Your task to perform on an android device: change keyboard looks Image 0: 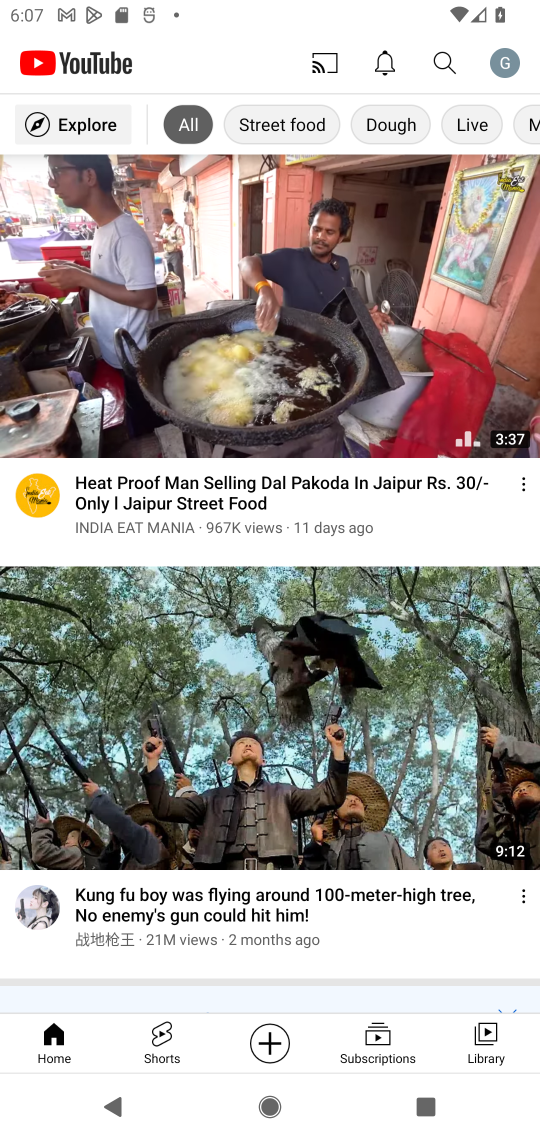
Step 0: press home button
Your task to perform on an android device: change keyboard looks Image 1: 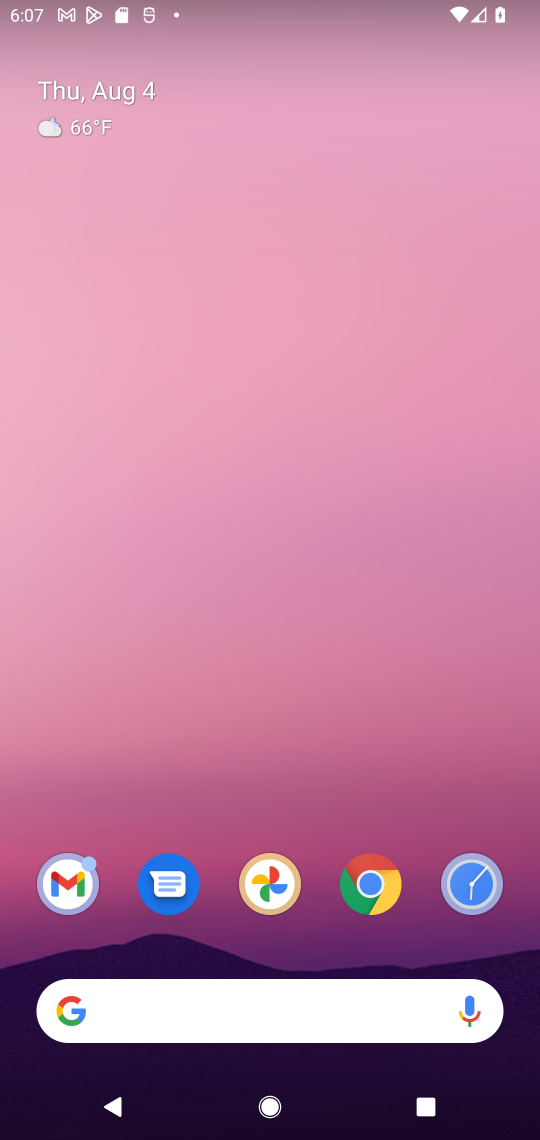
Step 1: drag from (307, 969) to (366, 370)
Your task to perform on an android device: change keyboard looks Image 2: 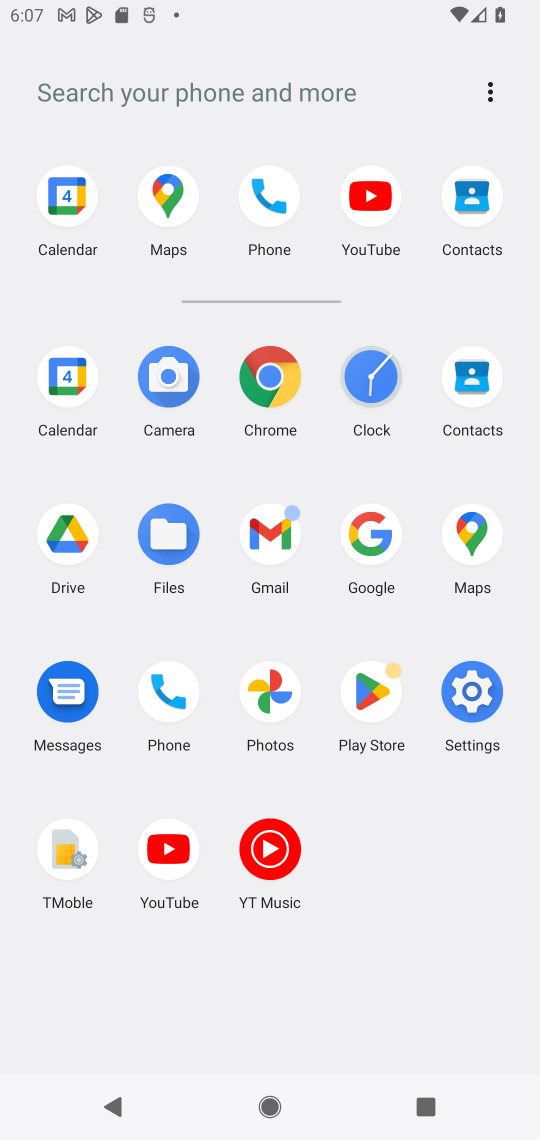
Step 2: click (465, 729)
Your task to perform on an android device: change keyboard looks Image 3: 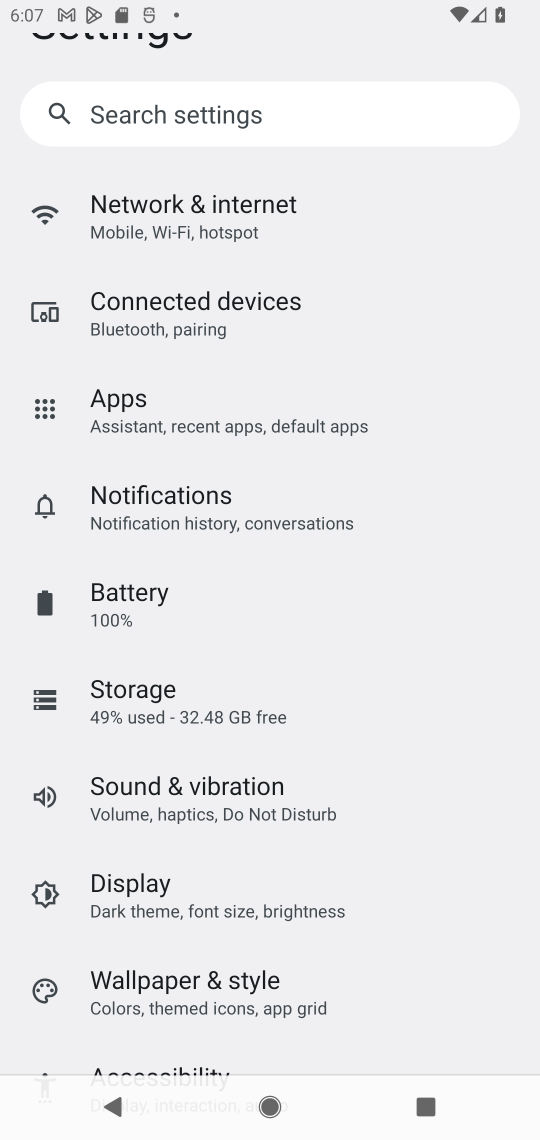
Step 3: drag from (209, 985) to (350, 245)
Your task to perform on an android device: change keyboard looks Image 4: 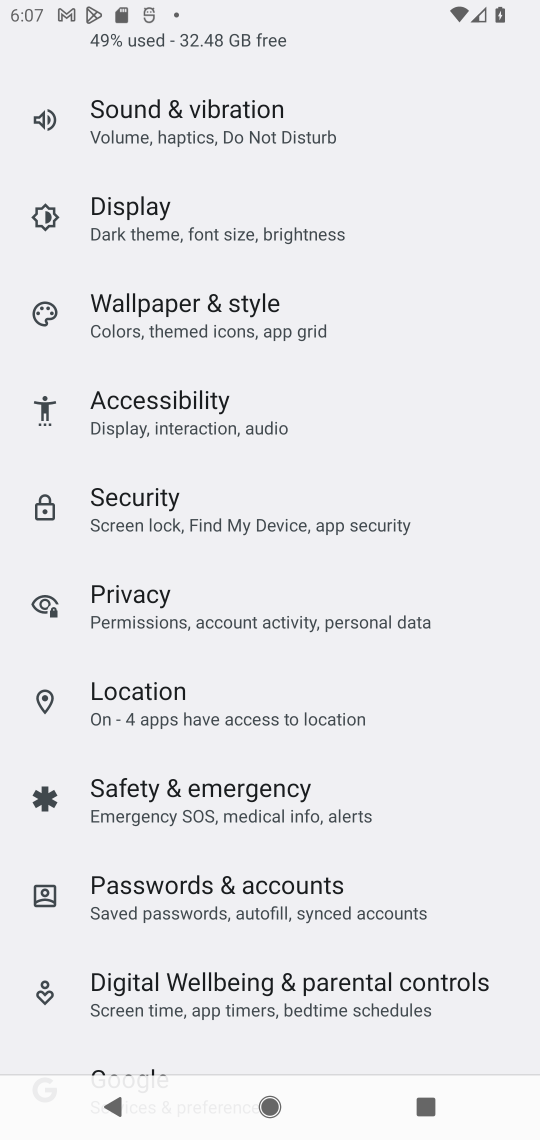
Step 4: drag from (279, 948) to (339, 278)
Your task to perform on an android device: change keyboard looks Image 5: 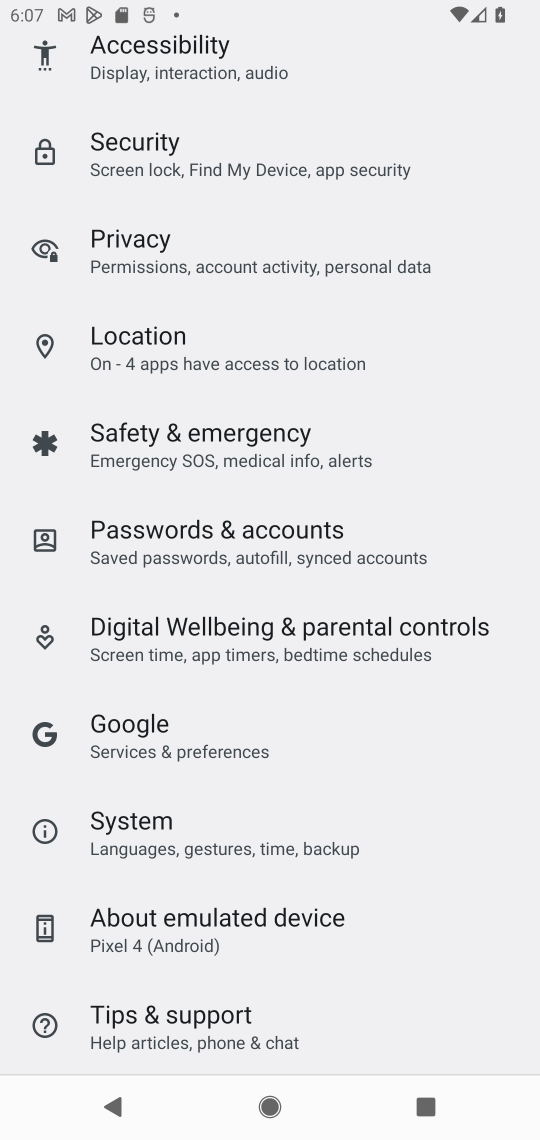
Step 5: drag from (272, 1012) to (389, 559)
Your task to perform on an android device: change keyboard looks Image 6: 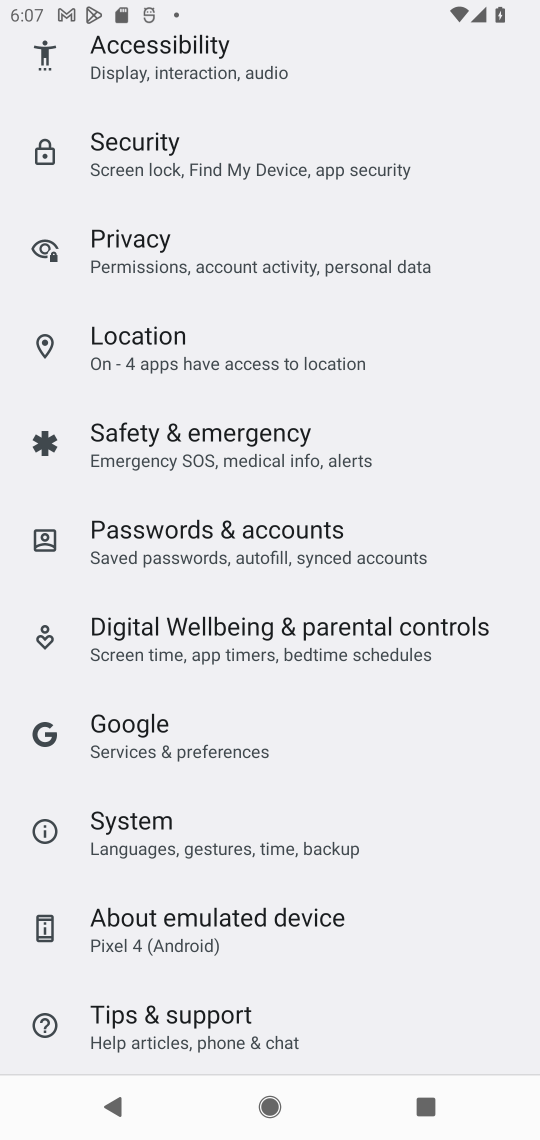
Step 6: click (204, 841)
Your task to perform on an android device: change keyboard looks Image 7: 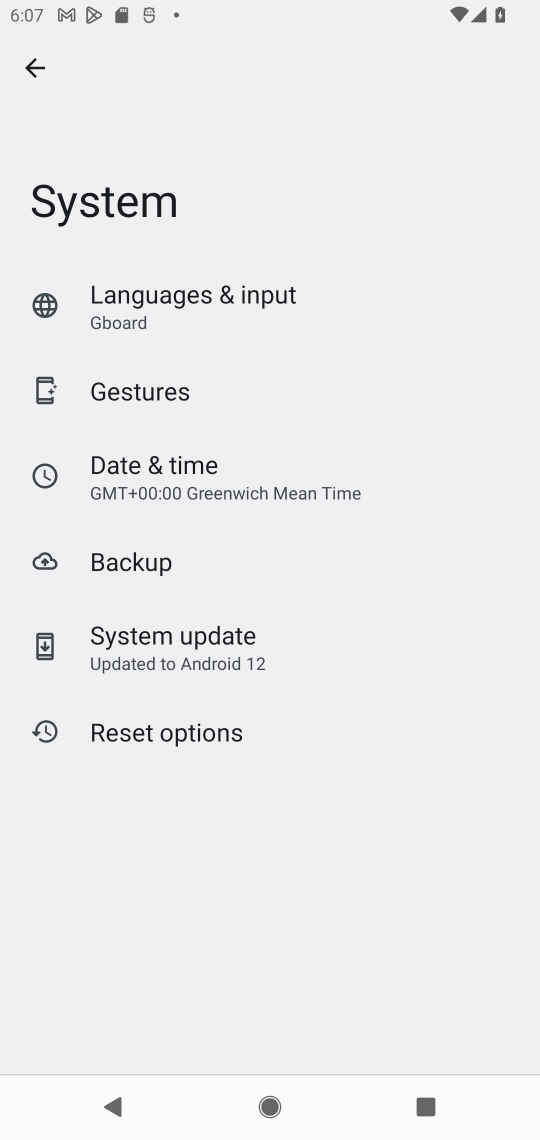
Step 7: task complete